Your task to perform on an android device: Go to accessibility settings Image 0: 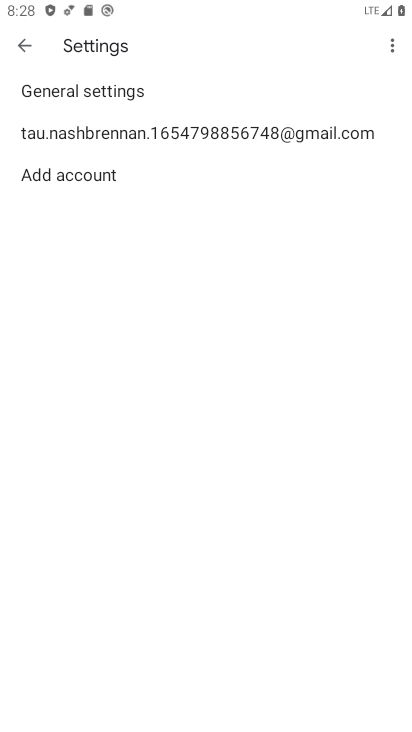
Step 0: press home button
Your task to perform on an android device: Go to accessibility settings Image 1: 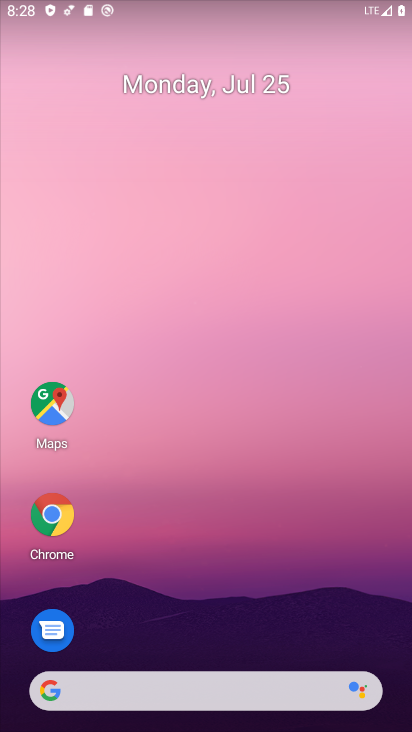
Step 1: drag from (21, 693) to (200, 113)
Your task to perform on an android device: Go to accessibility settings Image 2: 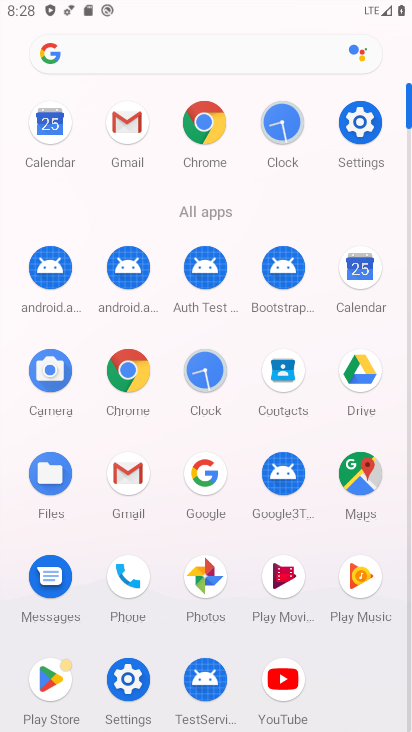
Step 2: click (121, 703)
Your task to perform on an android device: Go to accessibility settings Image 3: 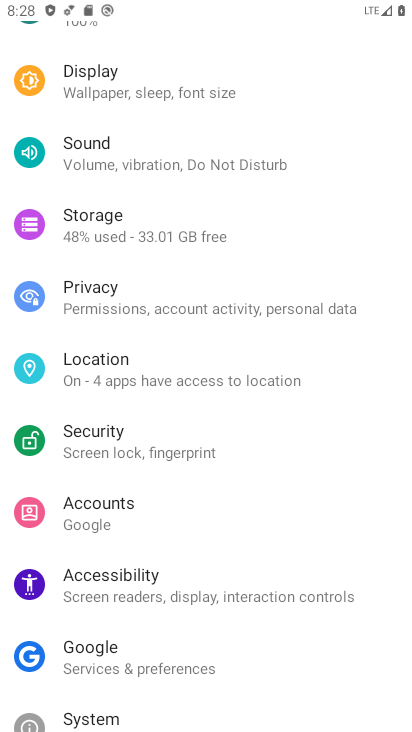
Step 3: click (172, 596)
Your task to perform on an android device: Go to accessibility settings Image 4: 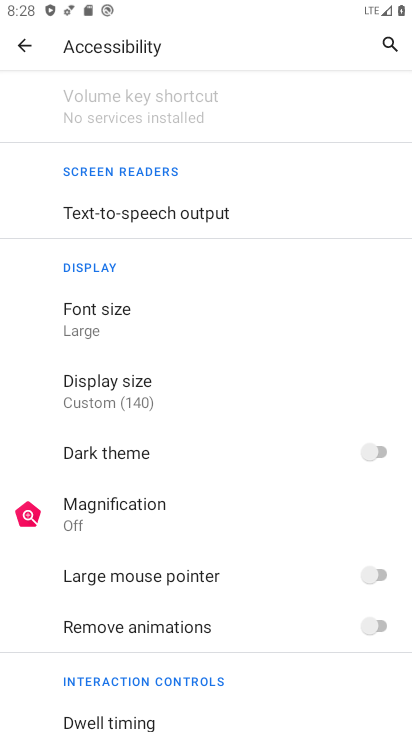
Step 4: task complete